Your task to perform on an android device: Open sound settings Image 0: 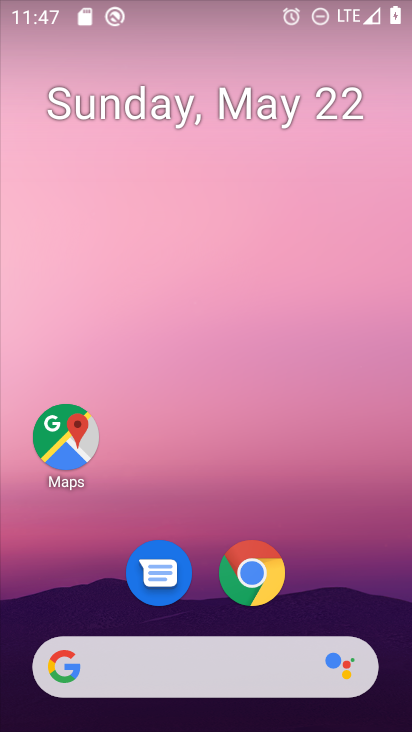
Step 0: drag from (310, 576) to (316, 0)
Your task to perform on an android device: Open sound settings Image 1: 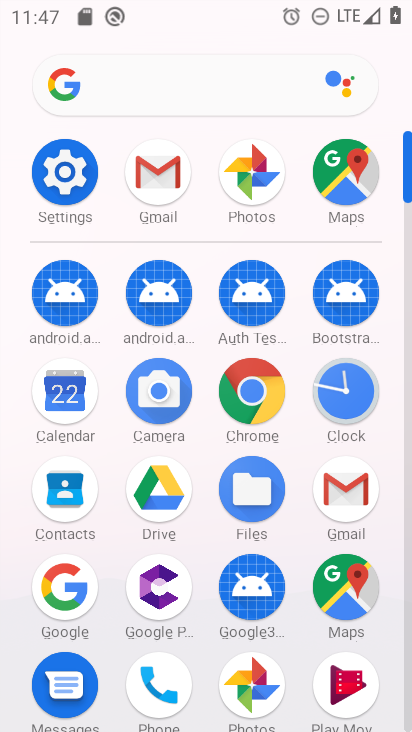
Step 1: click (60, 157)
Your task to perform on an android device: Open sound settings Image 2: 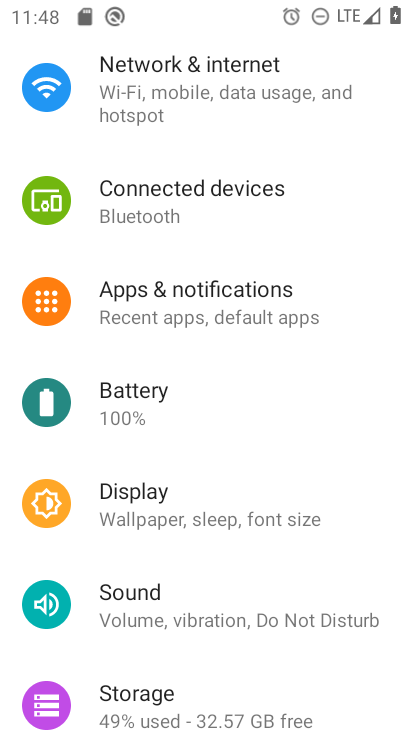
Step 2: click (166, 599)
Your task to perform on an android device: Open sound settings Image 3: 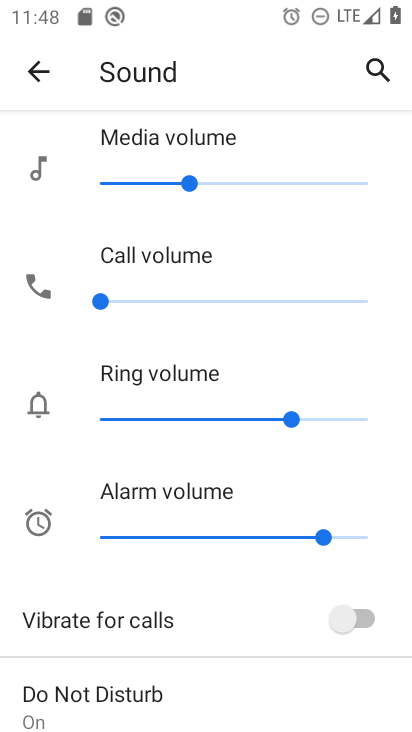
Step 3: task complete